Your task to perform on an android device: change your default location settings in chrome Image 0: 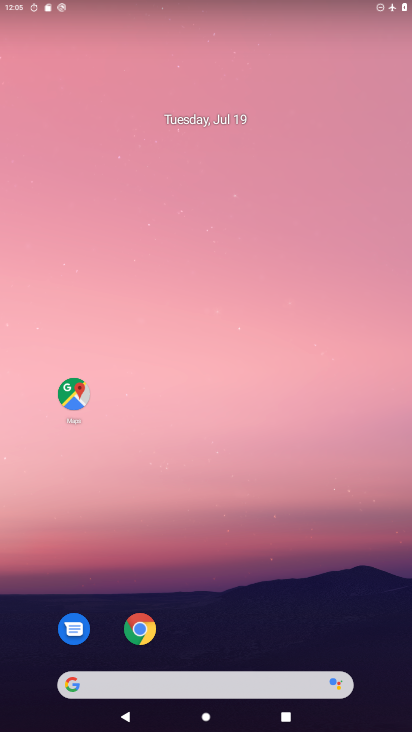
Step 0: drag from (323, 451) to (320, 138)
Your task to perform on an android device: change your default location settings in chrome Image 1: 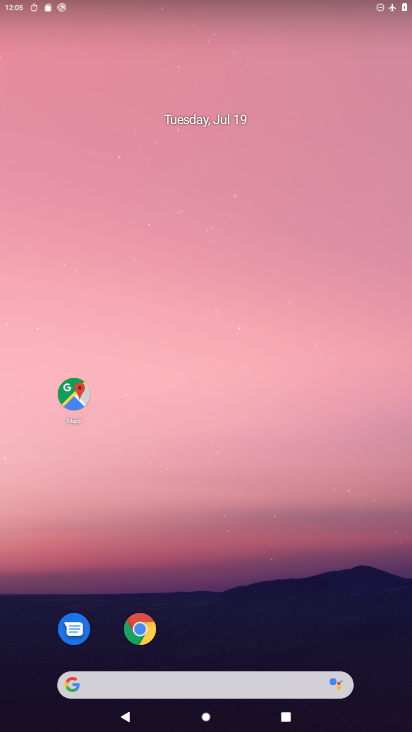
Step 1: drag from (316, 665) to (337, 155)
Your task to perform on an android device: change your default location settings in chrome Image 2: 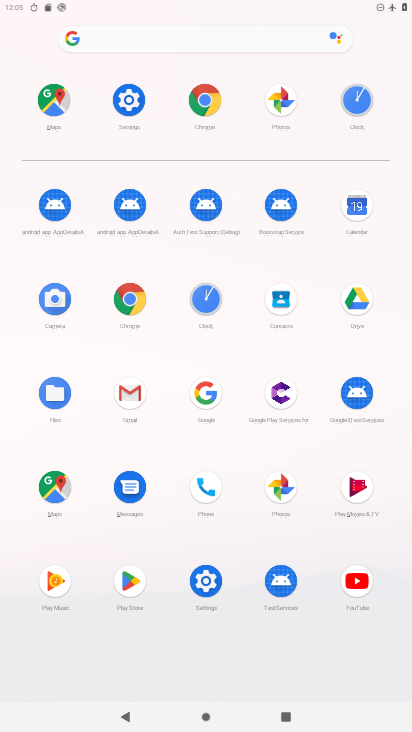
Step 2: click (205, 110)
Your task to perform on an android device: change your default location settings in chrome Image 3: 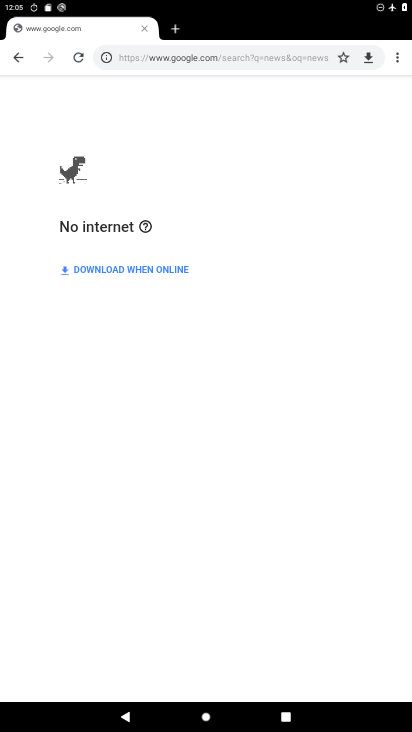
Step 3: drag from (397, 60) to (282, 395)
Your task to perform on an android device: change your default location settings in chrome Image 4: 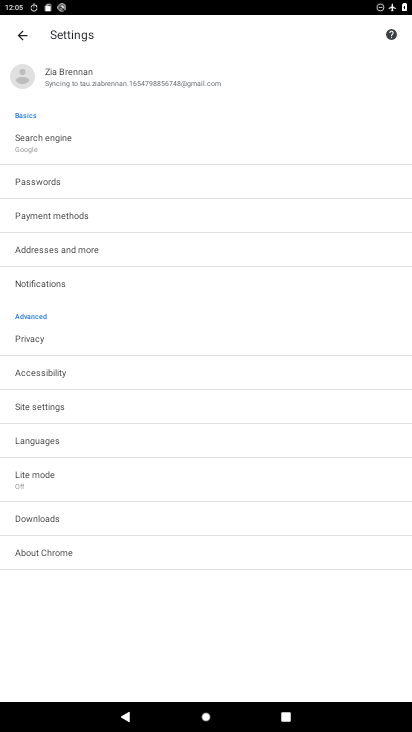
Step 4: click (38, 408)
Your task to perform on an android device: change your default location settings in chrome Image 5: 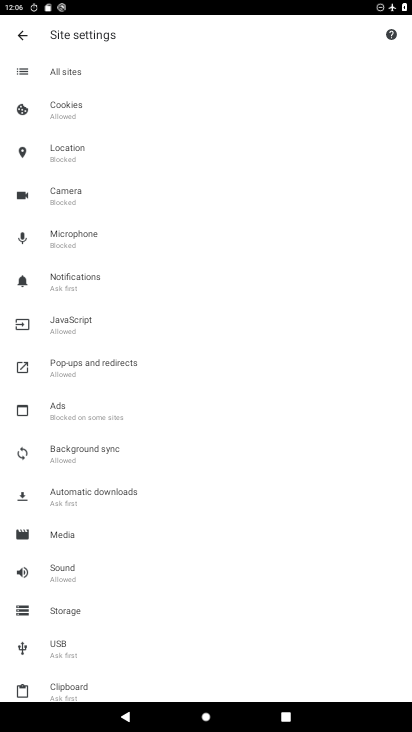
Step 5: click (71, 154)
Your task to perform on an android device: change your default location settings in chrome Image 6: 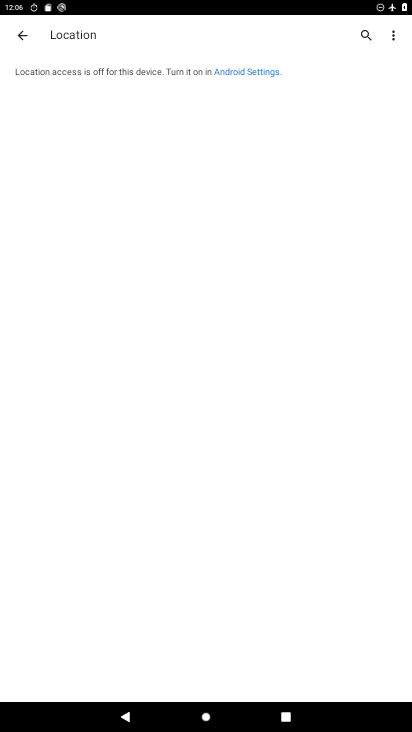
Step 6: task complete